Your task to perform on an android device: remove spam from my inbox in the gmail app Image 0: 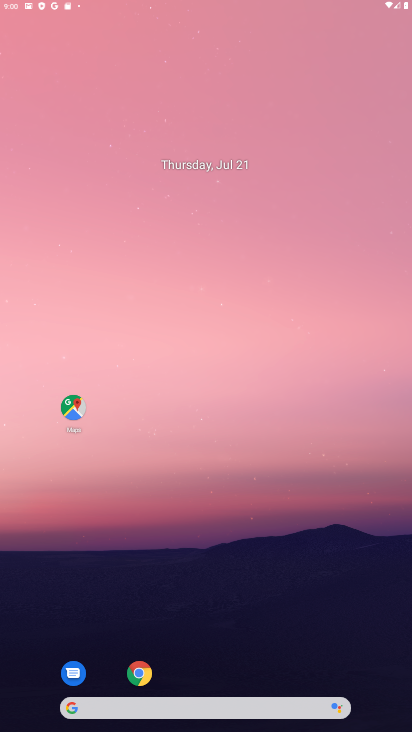
Step 0: press home button
Your task to perform on an android device: remove spam from my inbox in the gmail app Image 1: 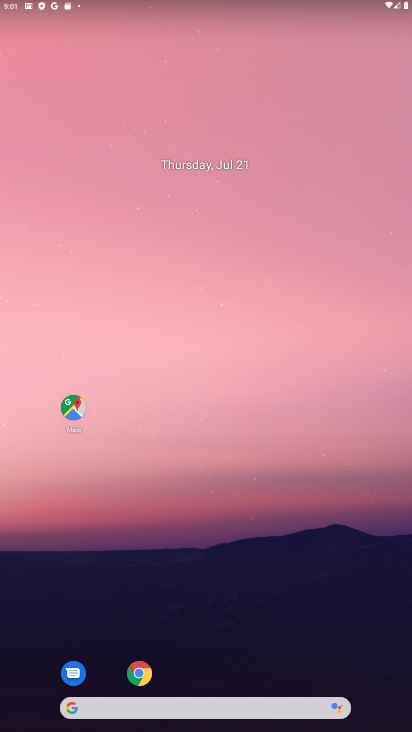
Step 1: drag from (211, 669) to (201, 28)
Your task to perform on an android device: remove spam from my inbox in the gmail app Image 2: 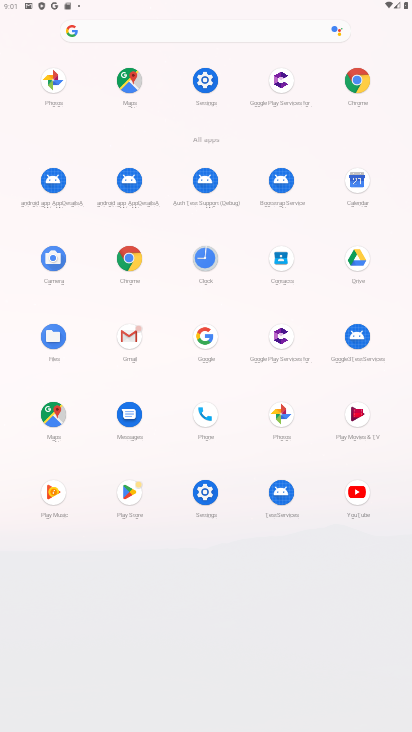
Step 2: click (125, 332)
Your task to perform on an android device: remove spam from my inbox in the gmail app Image 3: 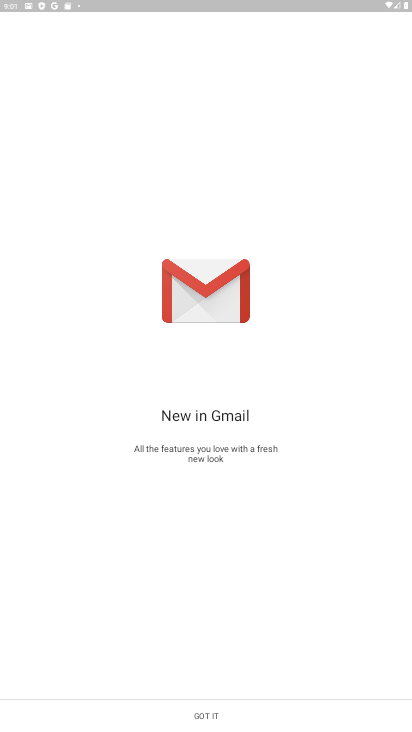
Step 3: click (207, 715)
Your task to perform on an android device: remove spam from my inbox in the gmail app Image 4: 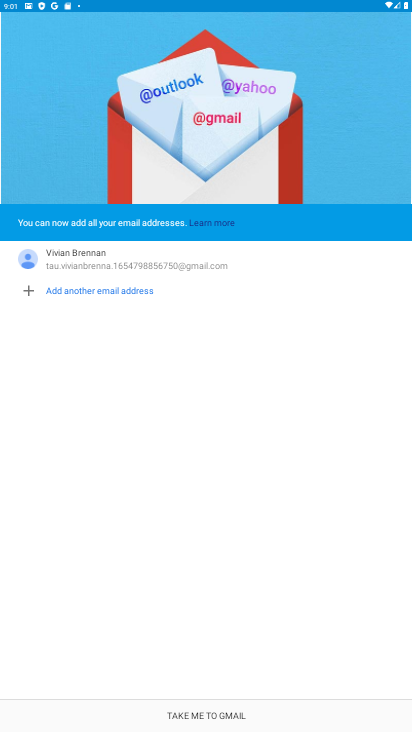
Step 4: click (197, 715)
Your task to perform on an android device: remove spam from my inbox in the gmail app Image 5: 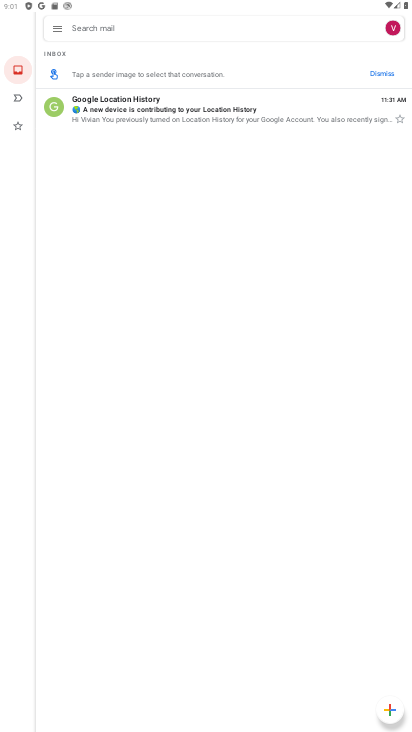
Step 5: click (58, 28)
Your task to perform on an android device: remove spam from my inbox in the gmail app Image 6: 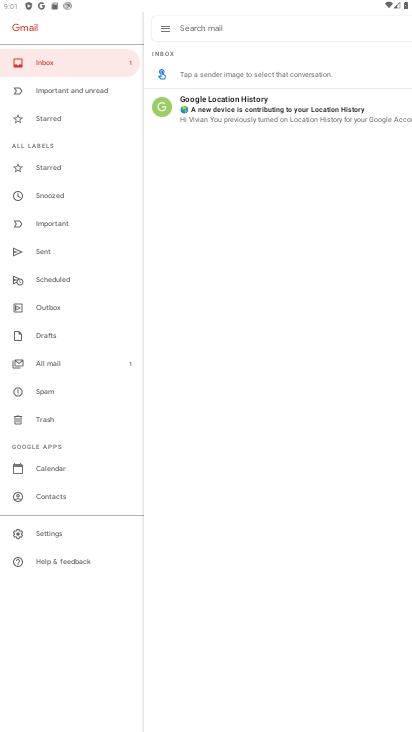
Step 6: click (42, 391)
Your task to perform on an android device: remove spam from my inbox in the gmail app Image 7: 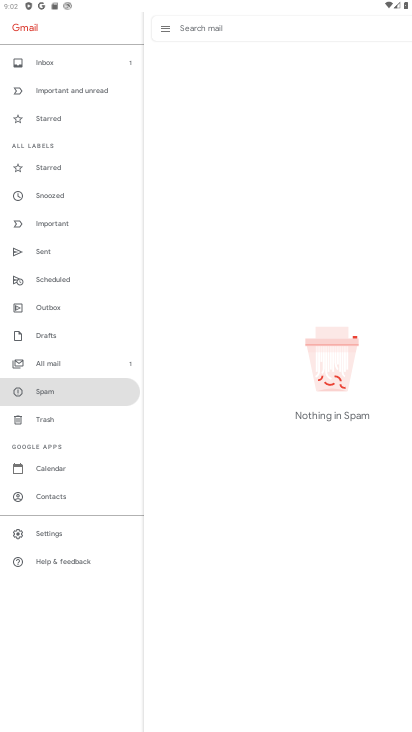
Step 7: task complete